Your task to perform on an android device: toggle wifi Image 0: 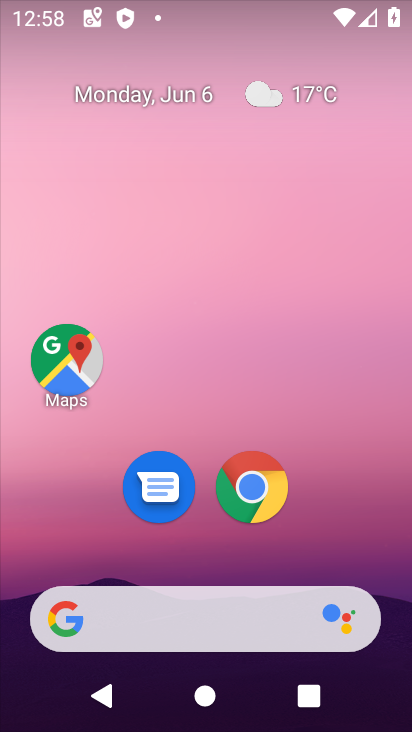
Step 0: drag from (92, 14) to (193, 416)
Your task to perform on an android device: toggle wifi Image 1: 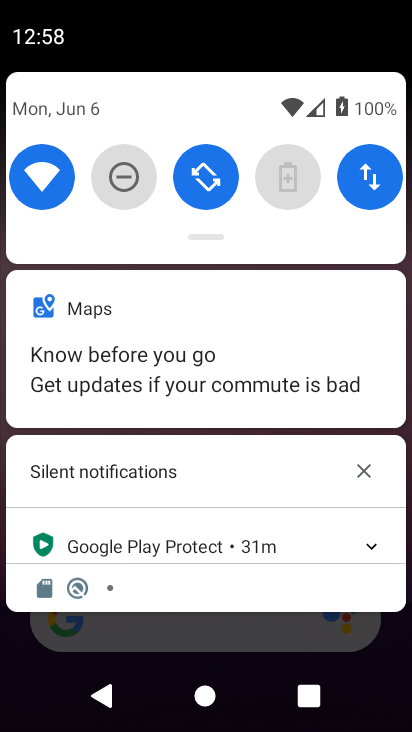
Step 1: click (38, 167)
Your task to perform on an android device: toggle wifi Image 2: 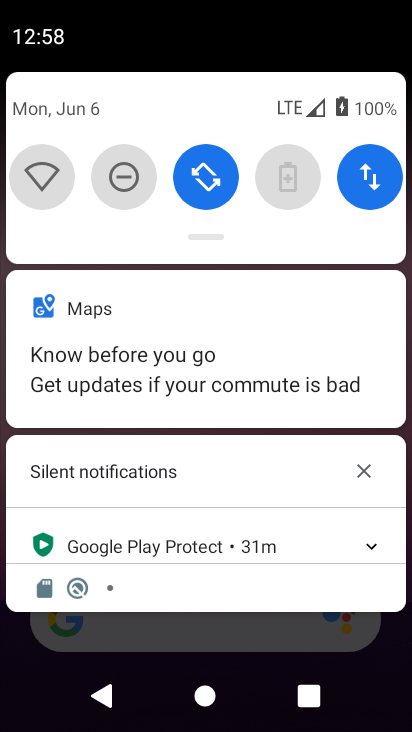
Step 2: task complete